Your task to perform on an android device: Open Yahoo.com Image 0: 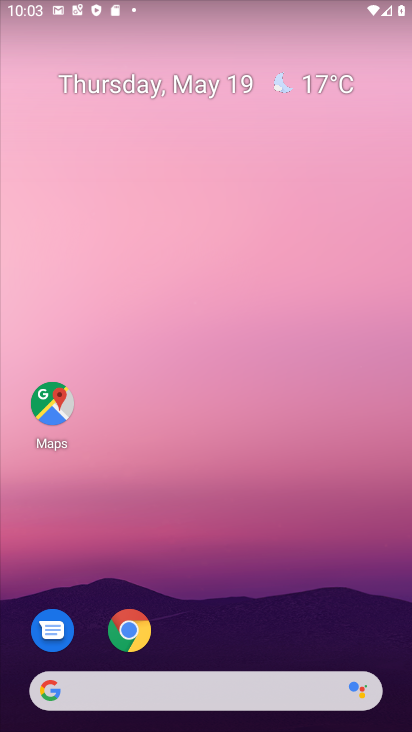
Step 0: click (133, 625)
Your task to perform on an android device: Open Yahoo.com Image 1: 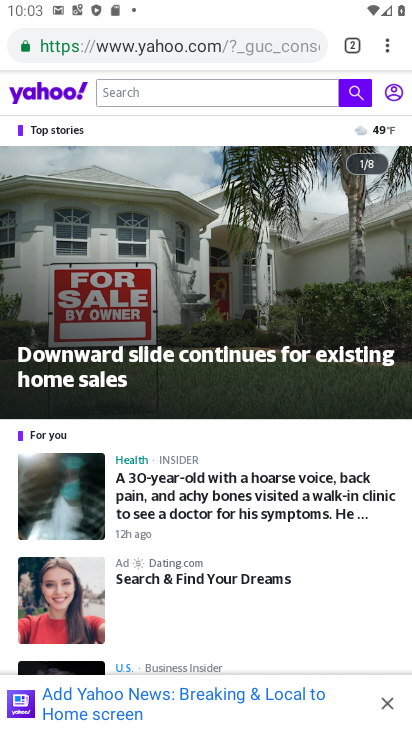
Step 1: task complete